Your task to perform on an android device: turn on bluetooth scan Image 0: 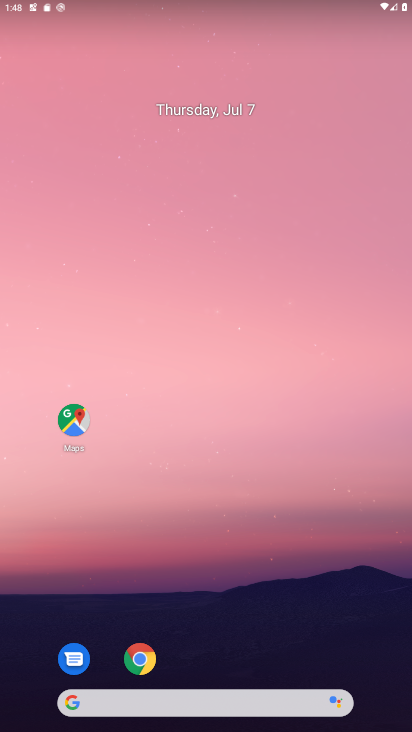
Step 0: drag from (199, 631) to (239, 34)
Your task to perform on an android device: turn on bluetooth scan Image 1: 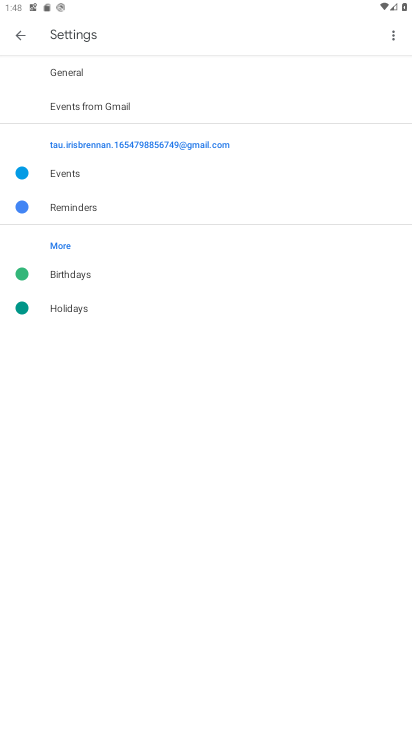
Step 1: click (291, 164)
Your task to perform on an android device: turn on bluetooth scan Image 2: 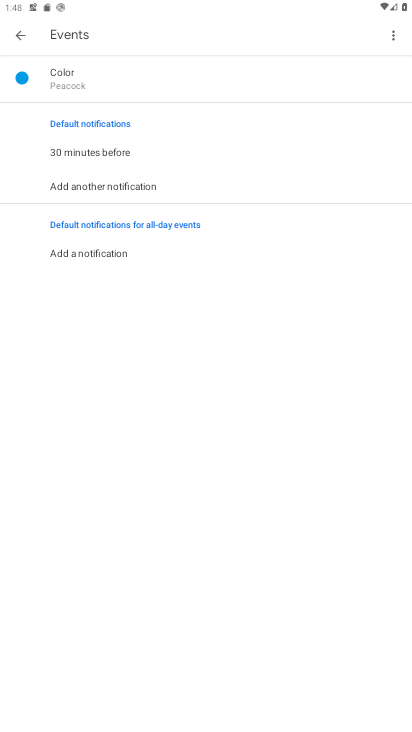
Step 2: click (14, 38)
Your task to perform on an android device: turn on bluetooth scan Image 3: 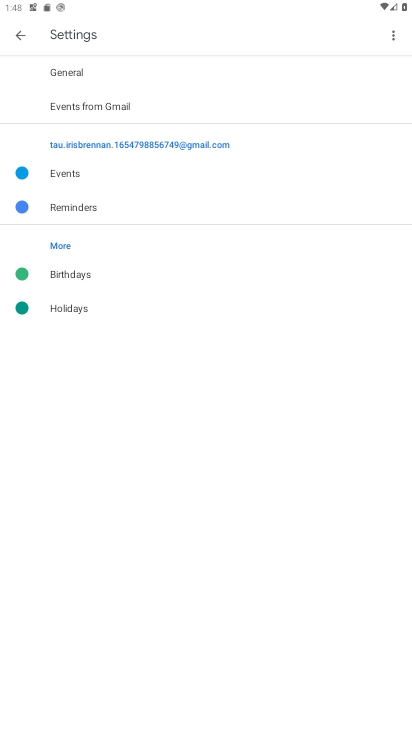
Step 3: click (20, 38)
Your task to perform on an android device: turn on bluetooth scan Image 4: 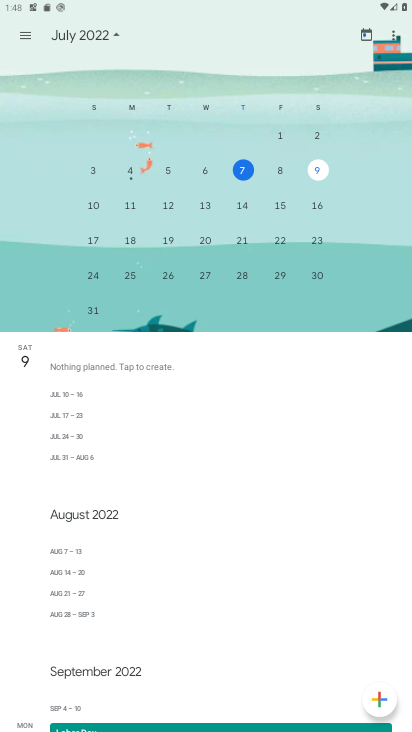
Step 4: press home button
Your task to perform on an android device: turn on bluetooth scan Image 5: 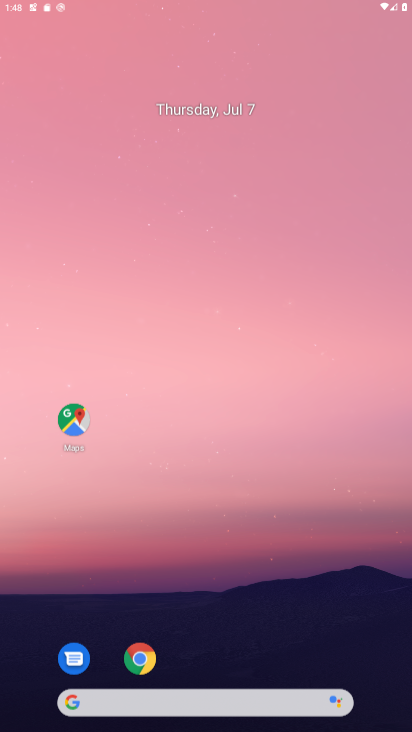
Step 5: drag from (187, 555) to (198, 89)
Your task to perform on an android device: turn on bluetooth scan Image 6: 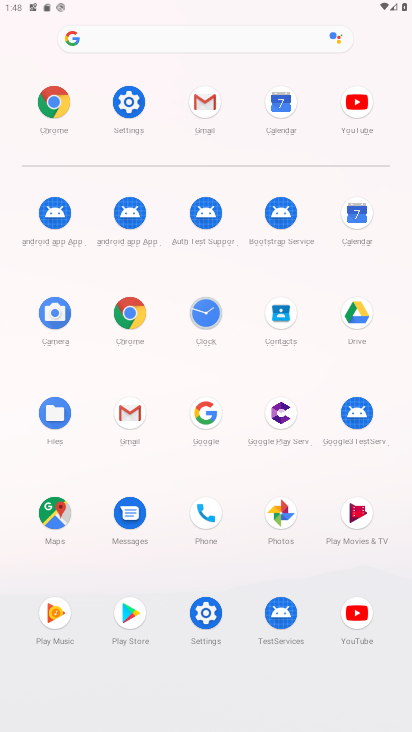
Step 6: click (126, 96)
Your task to perform on an android device: turn on bluetooth scan Image 7: 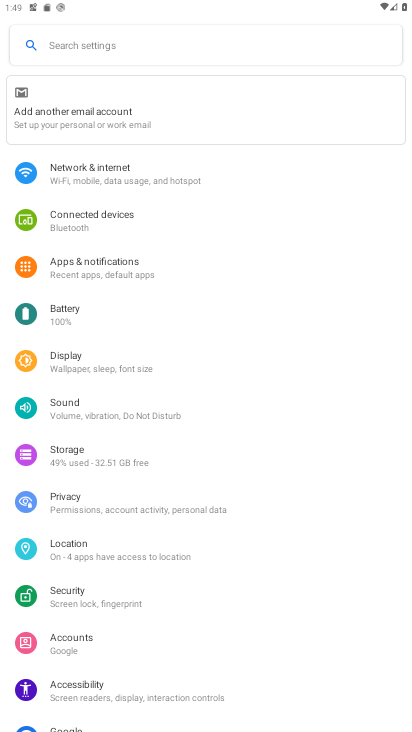
Step 7: drag from (174, 570) to (263, 222)
Your task to perform on an android device: turn on bluetooth scan Image 8: 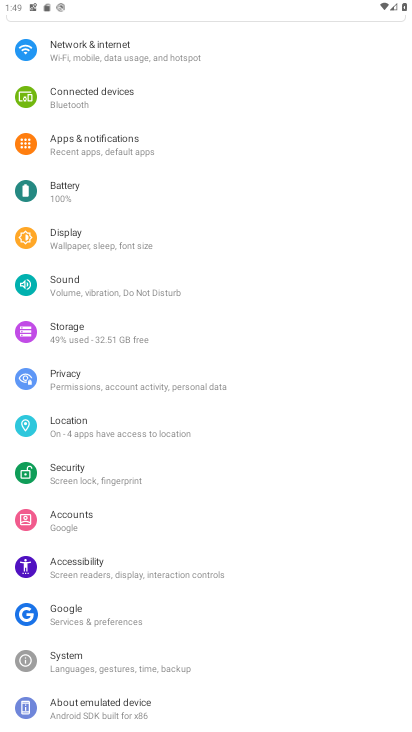
Step 8: drag from (187, 219) to (308, 22)
Your task to perform on an android device: turn on bluetooth scan Image 9: 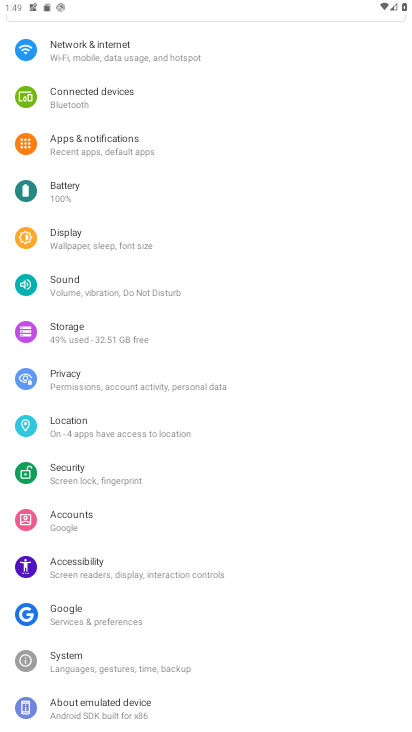
Step 9: click (87, 423)
Your task to perform on an android device: turn on bluetooth scan Image 10: 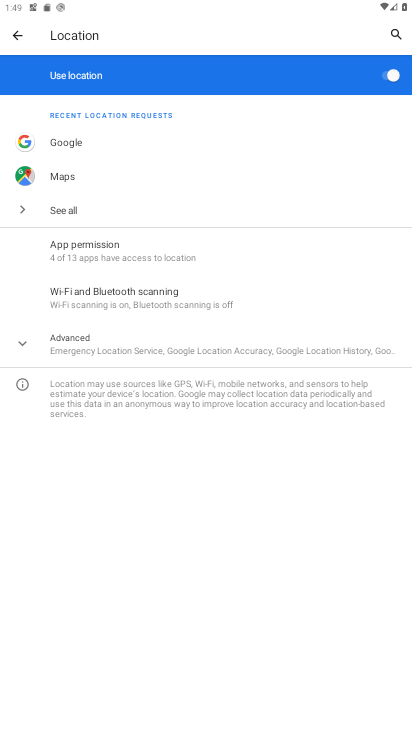
Step 10: click (130, 342)
Your task to perform on an android device: turn on bluetooth scan Image 11: 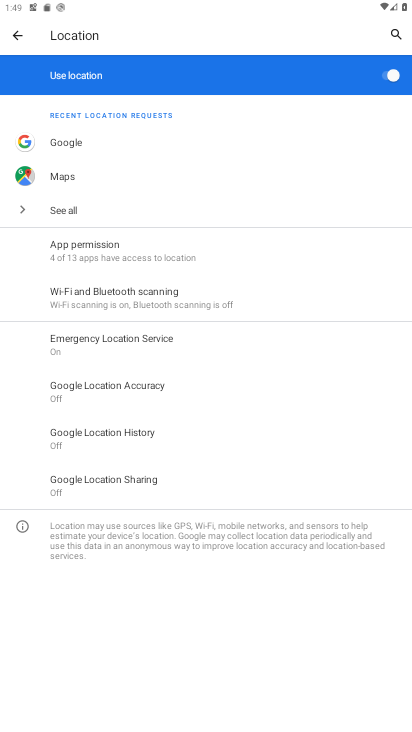
Step 11: click (147, 287)
Your task to perform on an android device: turn on bluetooth scan Image 12: 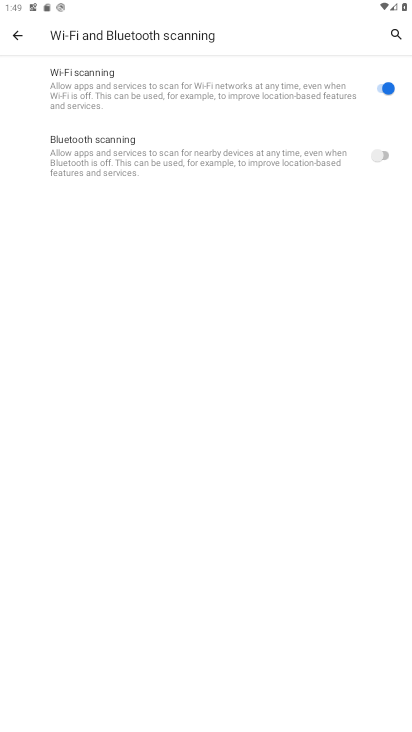
Step 12: click (286, 152)
Your task to perform on an android device: turn on bluetooth scan Image 13: 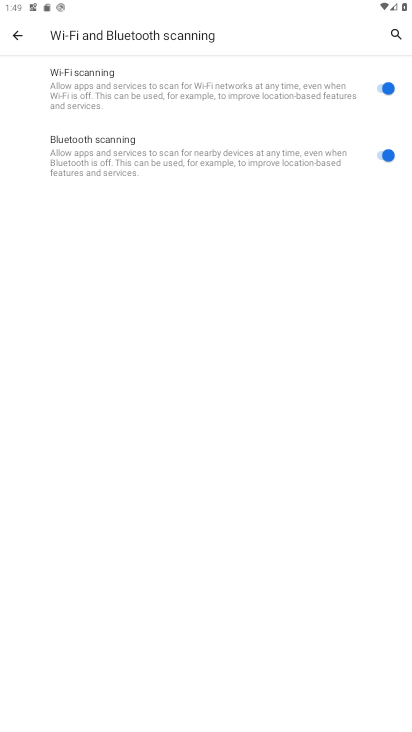
Step 13: task complete